Your task to perform on an android device: open a new tab in the chrome app Image 0: 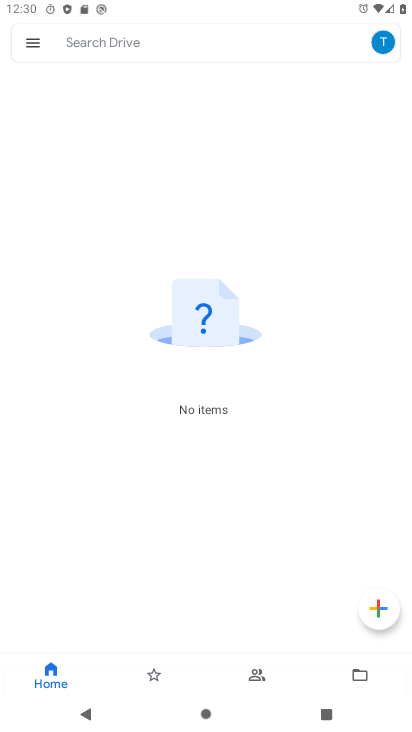
Step 0: press home button
Your task to perform on an android device: open a new tab in the chrome app Image 1: 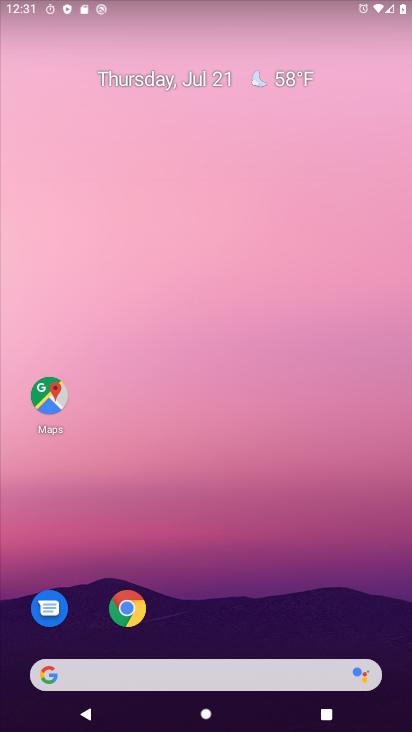
Step 1: click (130, 610)
Your task to perform on an android device: open a new tab in the chrome app Image 2: 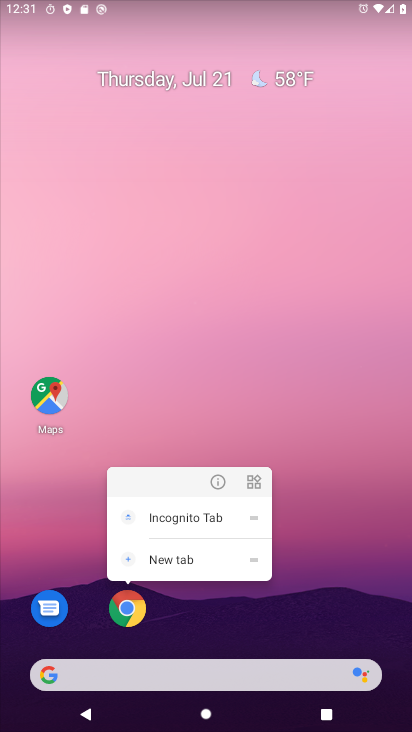
Step 2: click (130, 603)
Your task to perform on an android device: open a new tab in the chrome app Image 3: 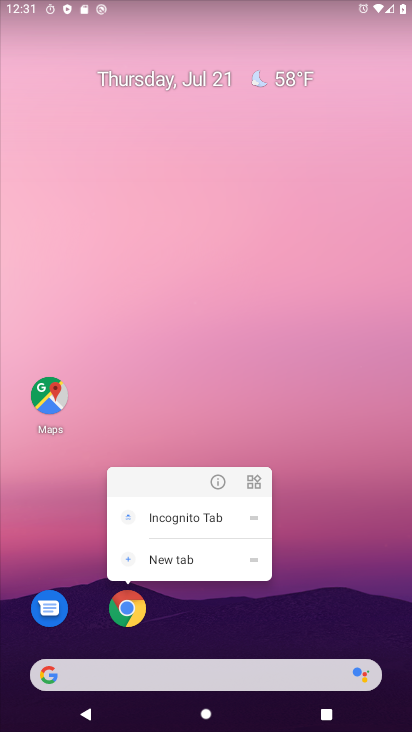
Step 3: click (130, 603)
Your task to perform on an android device: open a new tab in the chrome app Image 4: 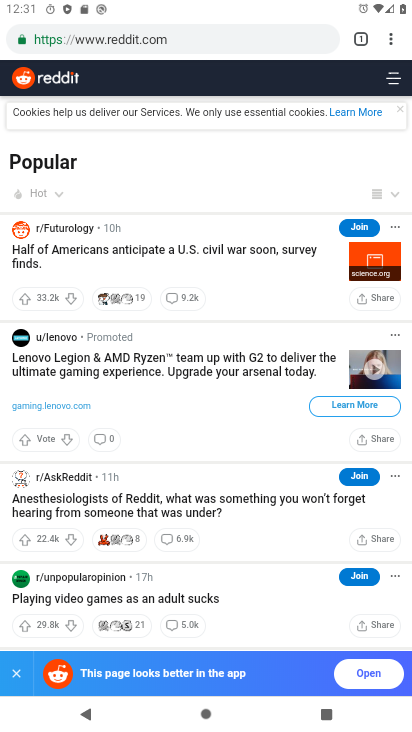
Step 4: click (353, 35)
Your task to perform on an android device: open a new tab in the chrome app Image 5: 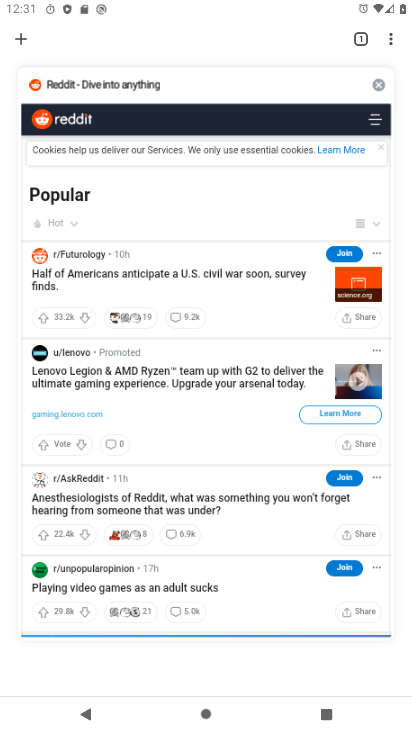
Step 5: click (17, 41)
Your task to perform on an android device: open a new tab in the chrome app Image 6: 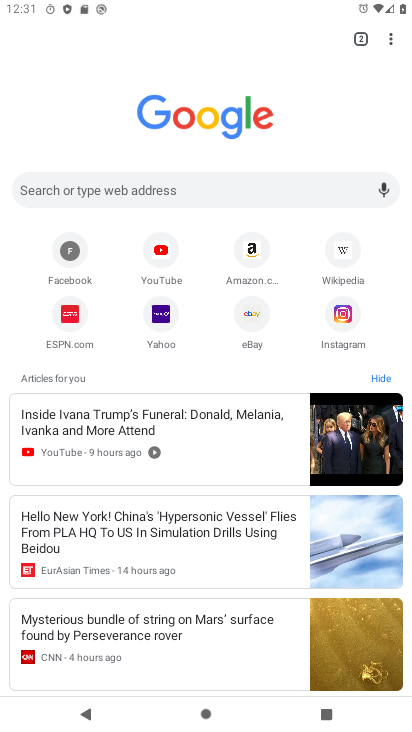
Step 6: task complete